Your task to perform on an android device: turn off improve location accuracy Image 0: 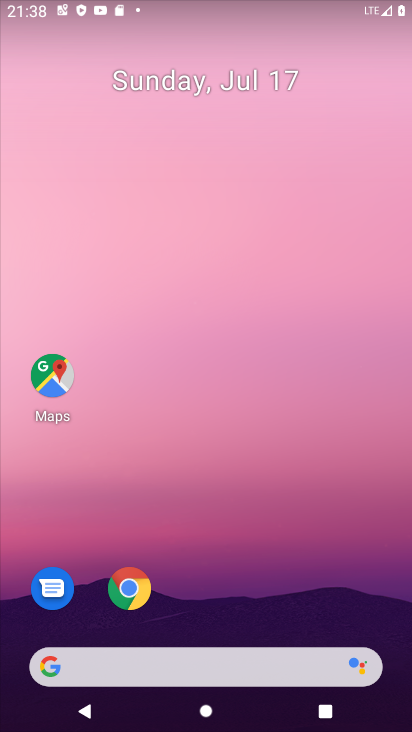
Step 0: press home button
Your task to perform on an android device: turn off improve location accuracy Image 1: 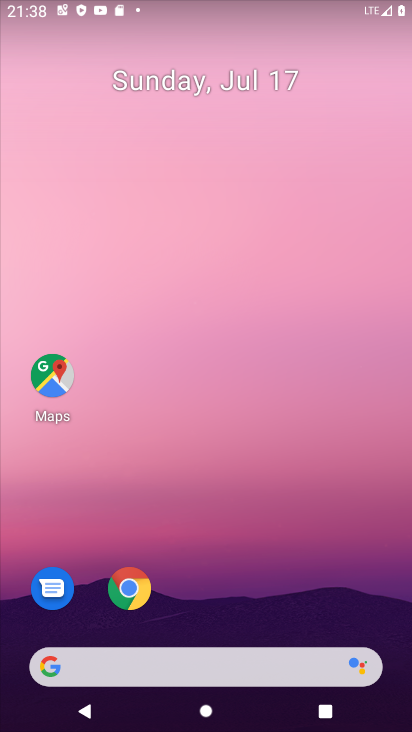
Step 1: drag from (313, 618) to (345, 57)
Your task to perform on an android device: turn off improve location accuracy Image 2: 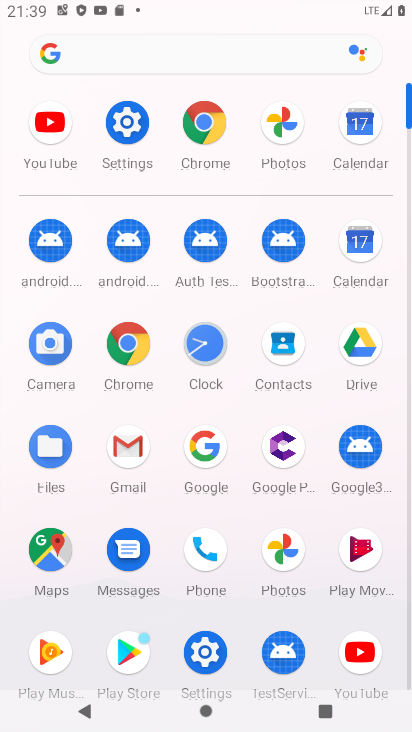
Step 2: click (146, 115)
Your task to perform on an android device: turn off improve location accuracy Image 3: 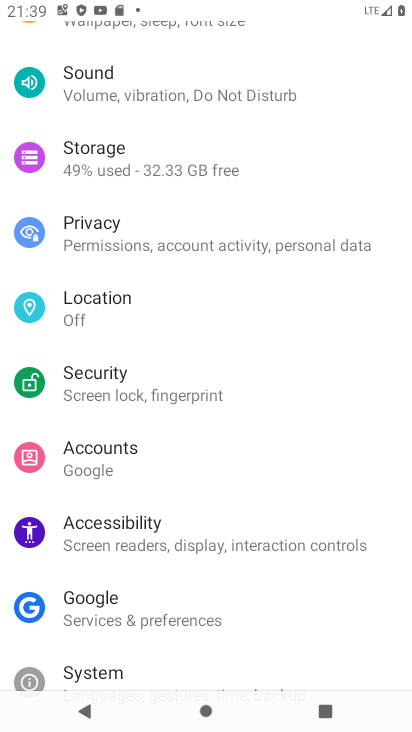
Step 3: click (146, 115)
Your task to perform on an android device: turn off improve location accuracy Image 4: 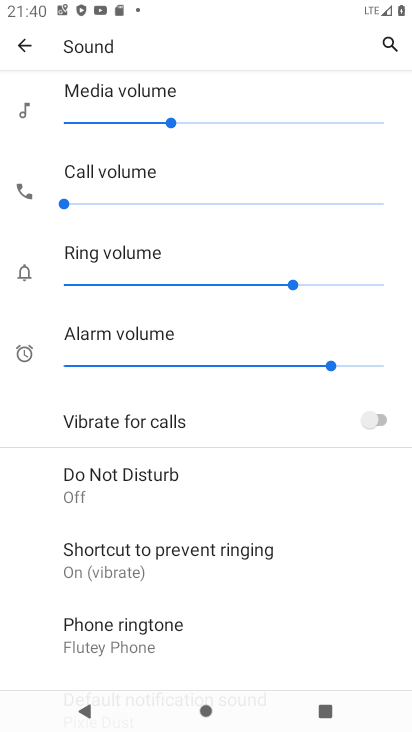
Step 4: click (24, 45)
Your task to perform on an android device: turn off improve location accuracy Image 5: 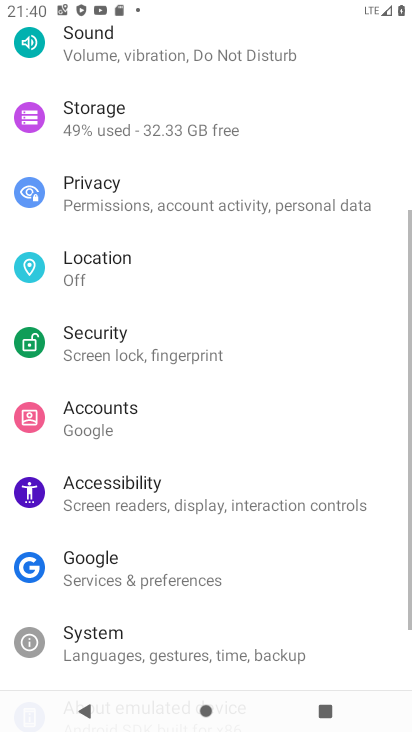
Step 5: drag from (155, 621) to (177, 367)
Your task to perform on an android device: turn off improve location accuracy Image 6: 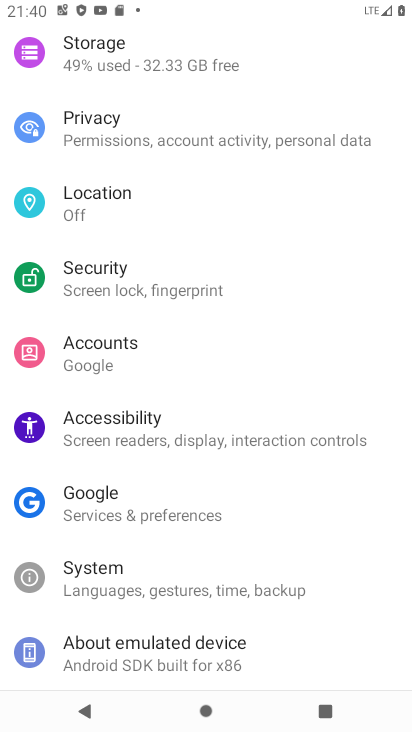
Step 6: click (101, 218)
Your task to perform on an android device: turn off improve location accuracy Image 7: 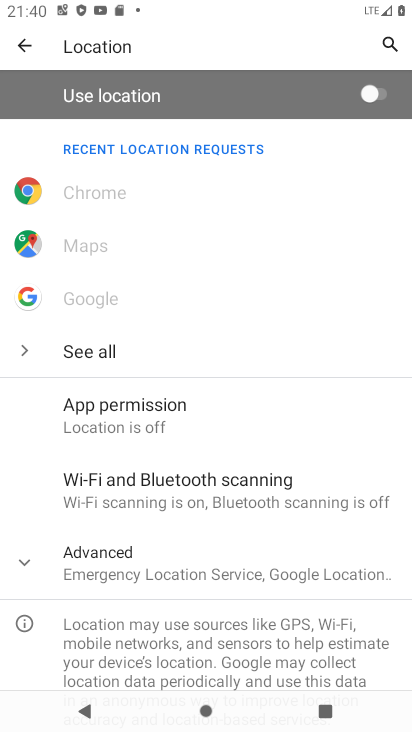
Step 7: click (137, 570)
Your task to perform on an android device: turn off improve location accuracy Image 8: 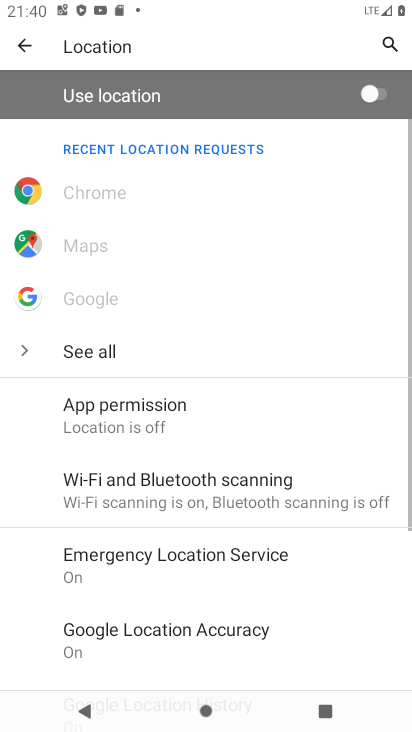
Step 8: click (91, 641)
Your task to perform on an android device: turn off improve location accuracy Image 9: 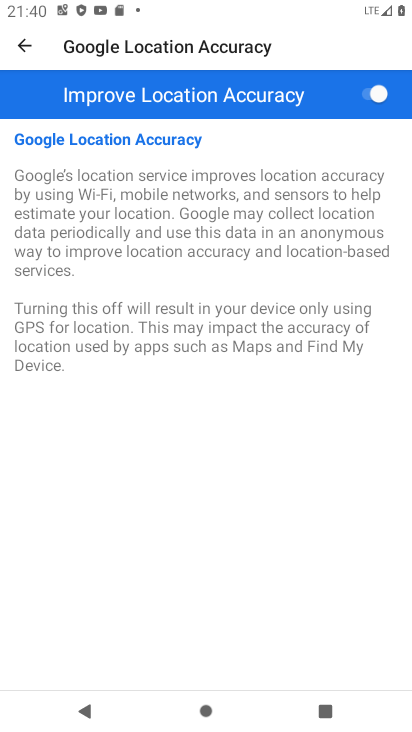
Step 9: click (209, 110)
Your task to perform on an android device: turn off improve location accuracy Image 10: 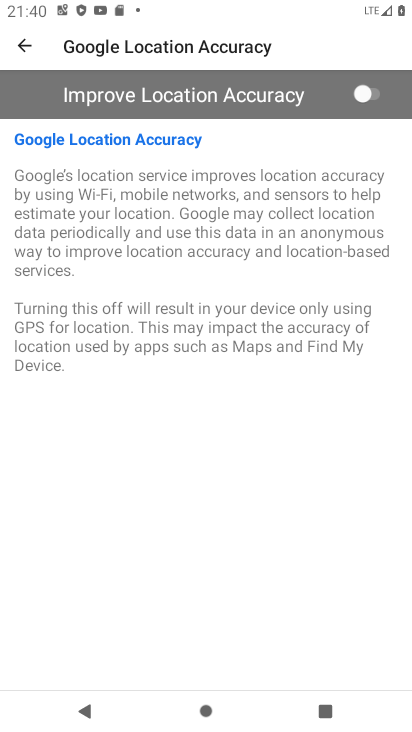
Step 10: task complete